Your task to perform on an android device: turn on data saver in the chrome app Image 0: 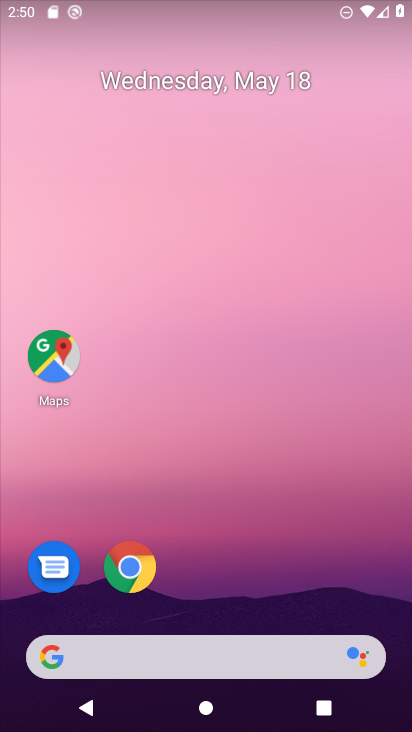
Step 0: click (131, 568)
Your task to perform on an android device: turn on data saver in the chrome app Image 1: 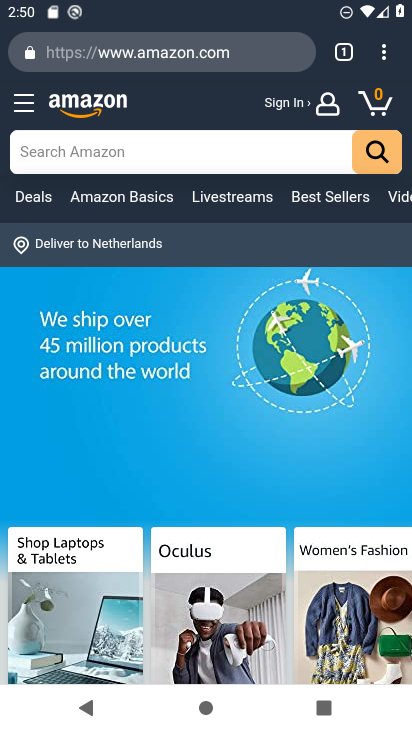
Step 1: click (386, 56)
Your task to perform on an android device: turn on data saver in the chrome app Image 2: 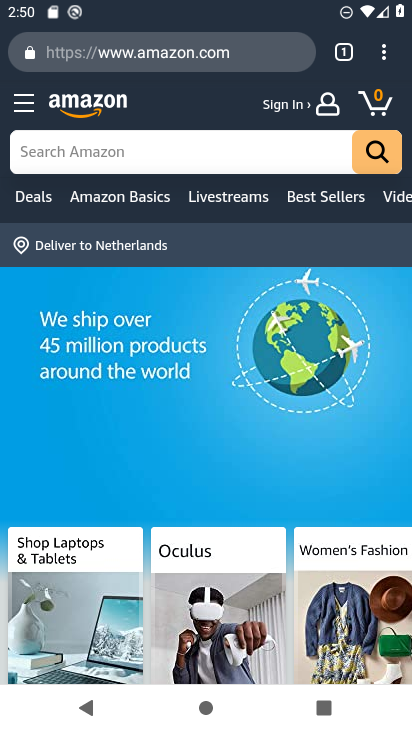
Step 2: click (386, 56)
Your task to perform on an android device: turn on data saver in the chrome app Image 3: 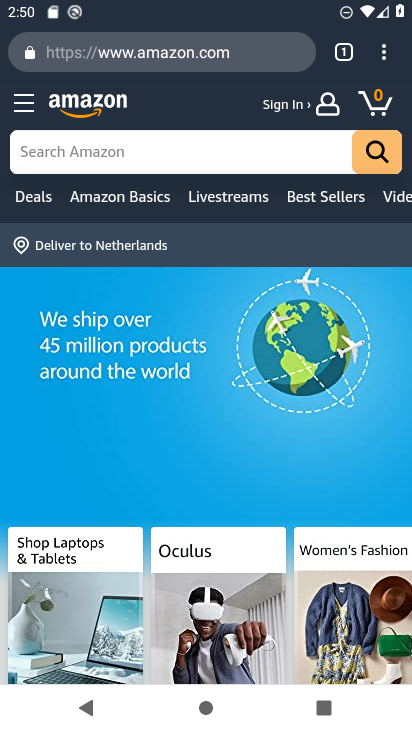
Step 3: click (388, 56)
Your task to perform on an android device: turn on data saver in the chrome app Image 4: 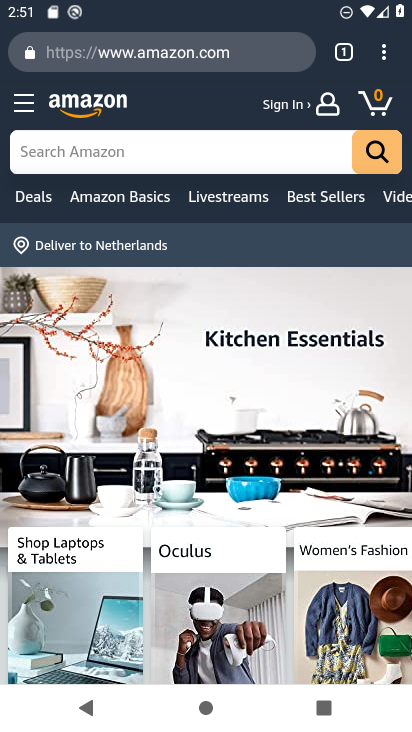
Step 4: click (382, 59)
Your task to perform on an android device: turn on data saver in the chrome app Image 5: 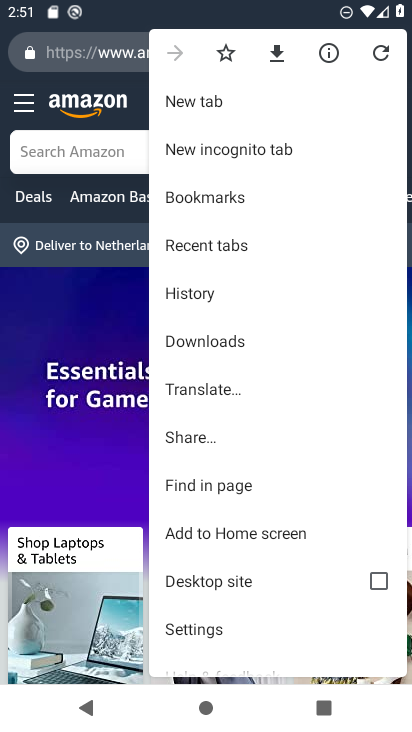
Step 5: click (214, 630)
Your task to perform on an android device: turn on data saver in the chrome app Image 6: 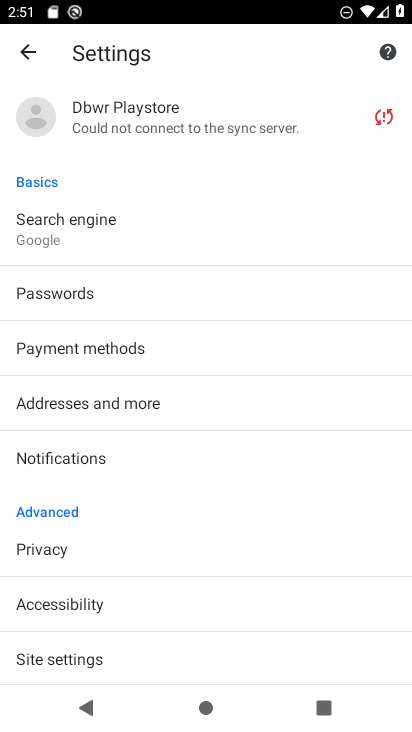
Step 6: drag from (119, 589) to (155, 261)
Your task to perform on an android device: turn on data saver in the chrome app Image 7: 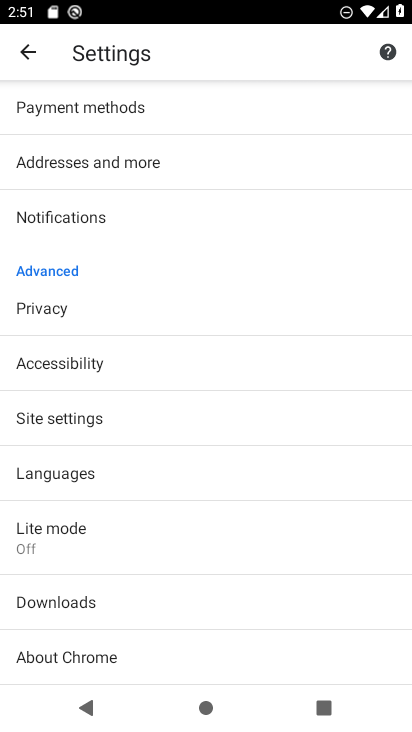
Step 7: drag from (99, 622) to (157, 329)
Your task to perform on an android device: turn on data saver in the chrome app Image 8: 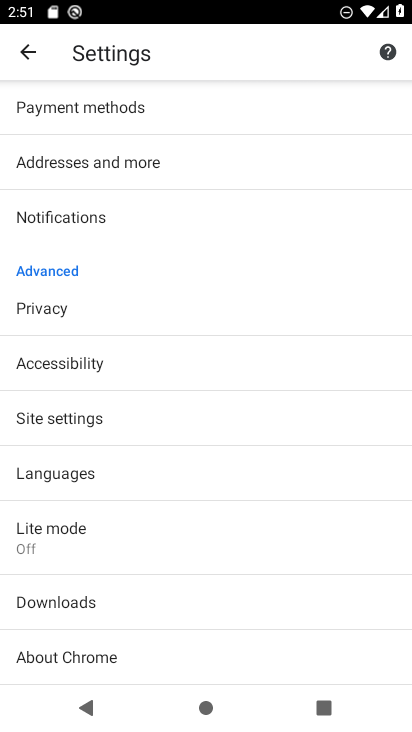
Step 8: click (88, 422)
Your task to perform on an android device: turn on data saver in the chrome app Image 9: 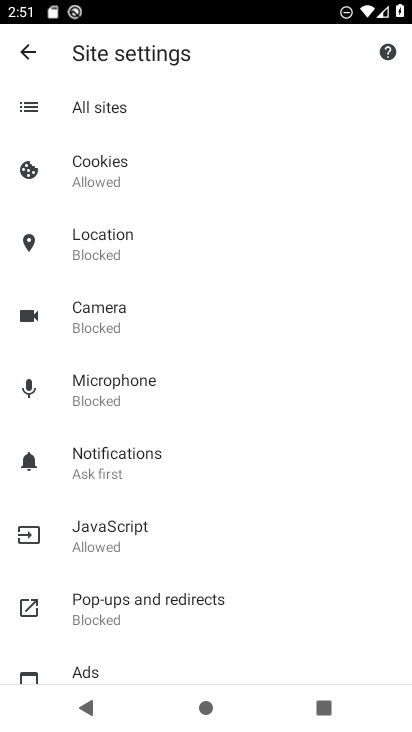
Step 9: press back button
Your task to perform on an android device: turn on data saver in the chrome app Image 10: 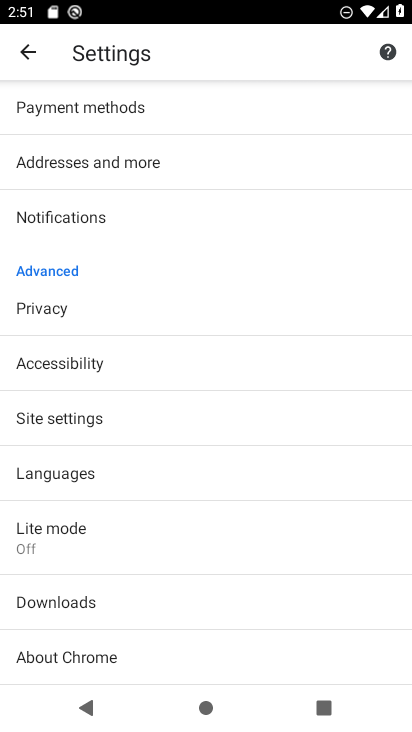
Step 10: click (50, 553)
Your task to perform on an android device: turn on data saver in the chrome app Image 11: 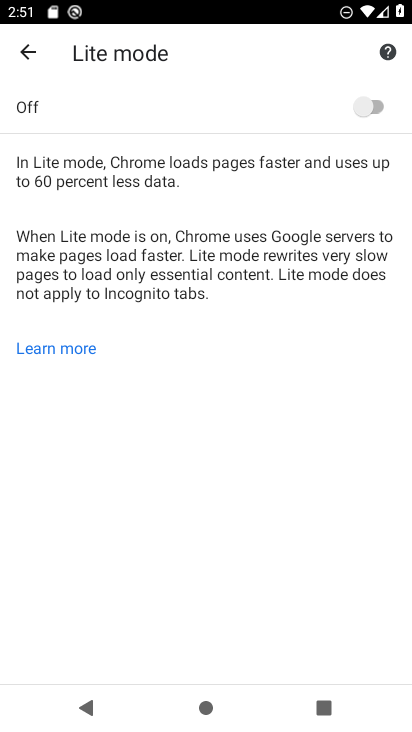
Step 11: click (379, 102)
Your task to perform on an android device: turn on data saver in the chrome app Image 12: 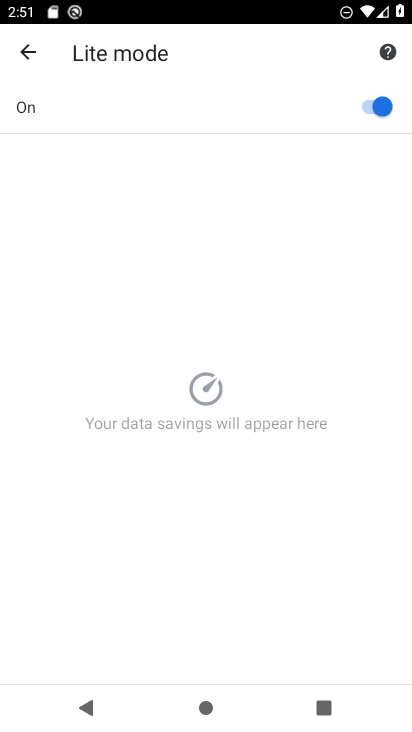
Step 12: task complete